Your task to perform on an android device: Open Google Chrome and click the shortcut for Amazon.com Image 0: 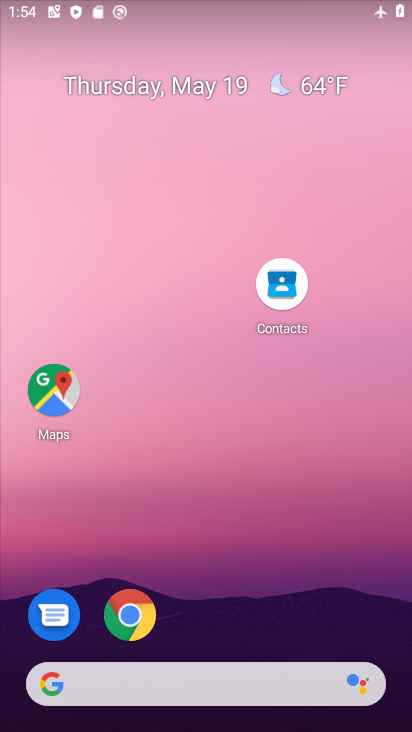
Step 0: click (139, 636)
Your task to perform on an android device: Open Google Chrome and click the shortcut for Amazon.com Image 1: 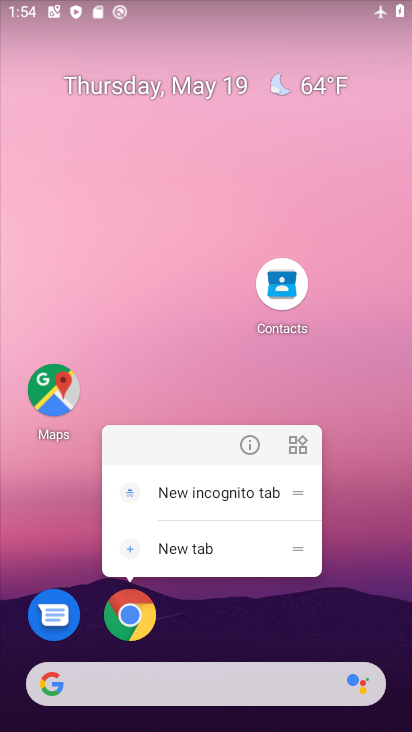
Step 1: click (126, 628)
Your task to perform on an android device: Open Google Chrome and click the shortcut for Amazon.com Image 2: 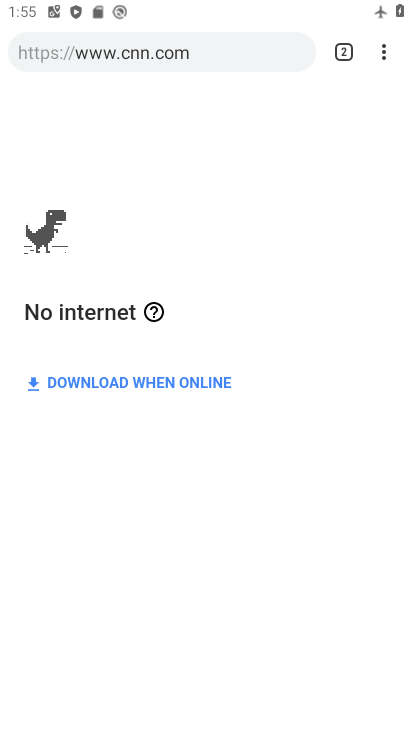
Step 2: drag from (337, 56) to (330, 169)
Your task to perform on an android device: Open Google Chrome and click the shortcut for Amazon.com Image 3: 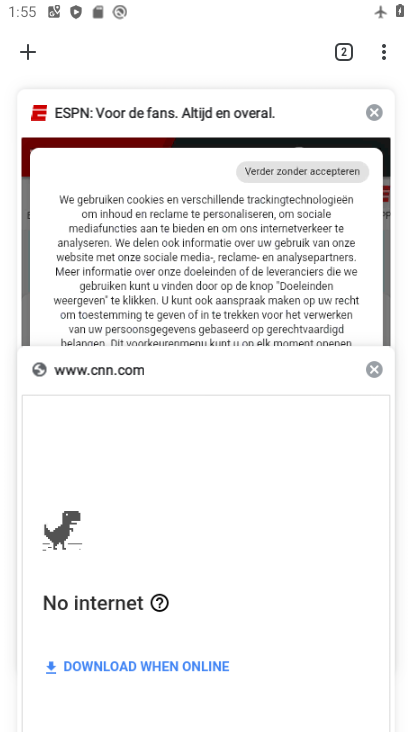
Step 3: click (30, 55)
Your task to perform on an android device: Open Google Chrome and click the shortcut for Amazon.com Image 4: 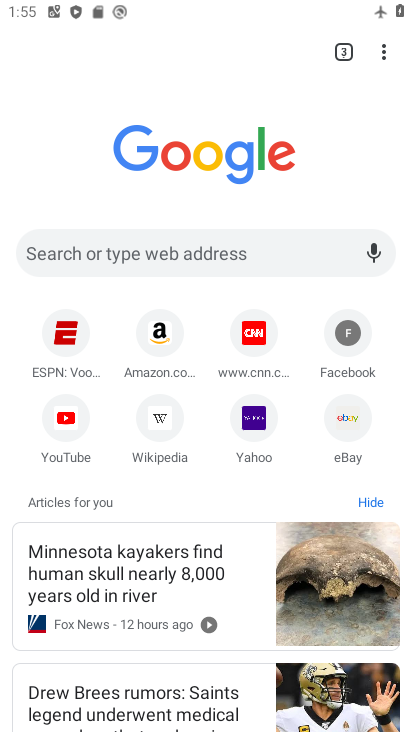
Step 4: click (170, 335)
Your task to perform on an android device: Open Google Chrome and click the shortcut for Amazon.com Image 5: 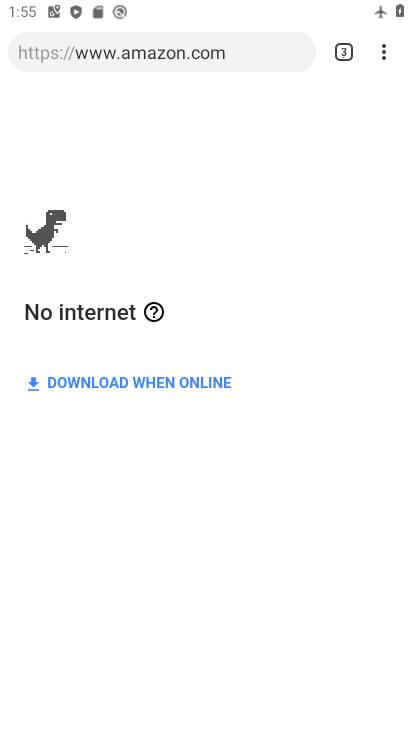
Step 5: task complete